Your task to perform on an android device: Is it going to rain this weekend? Image 0: 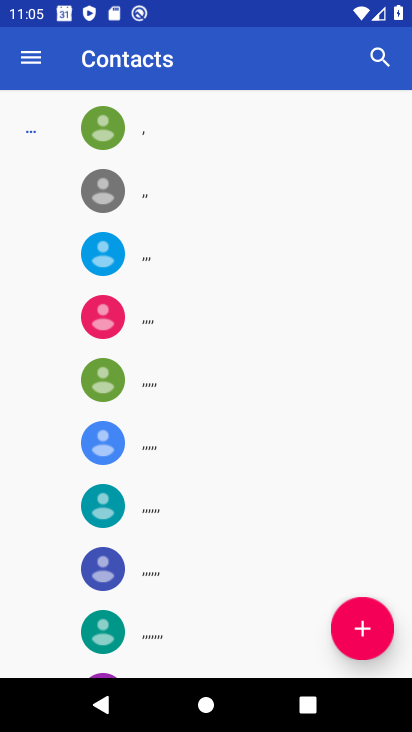
Step 0: press home button
Your task to perform on an android device: Is it going to rain this weekend? Image 1: 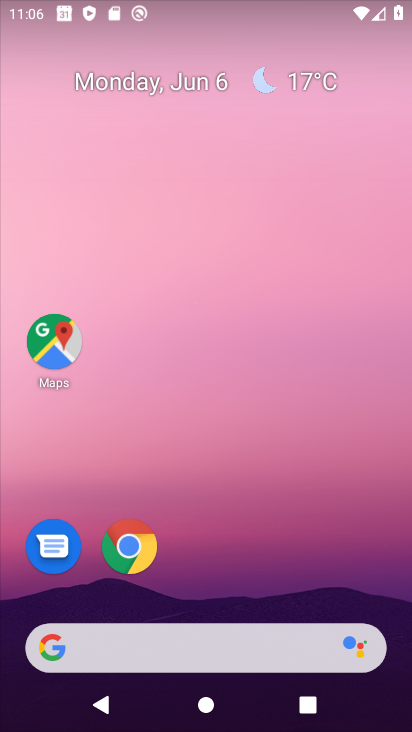
Step 1: click (314, 74)
Your task to perform on an android device: Is it going to rain this weekend? Image 2: 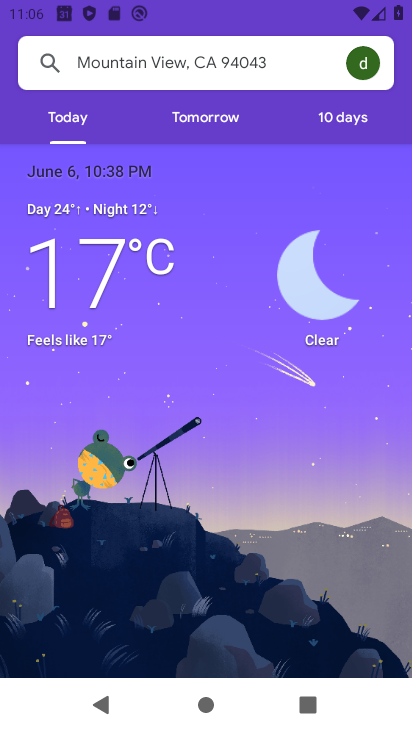
Step 2: click (339, 117)
Your task to perform on an android device: Is it going to rain this weekend? Image 3: 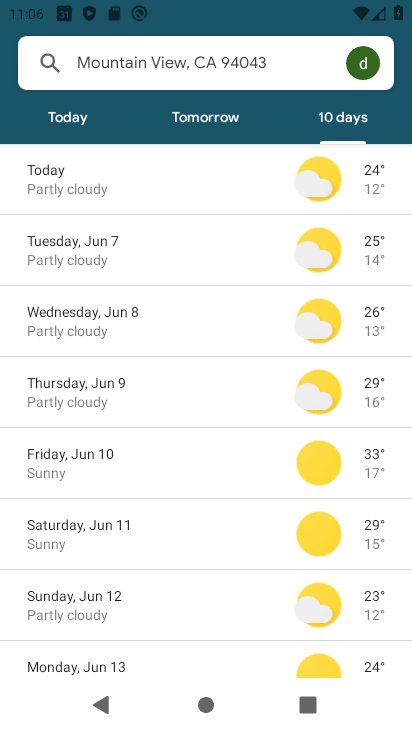
Step 3: task complete